Your task to perform on an android device: Go to Amazon Image 0: 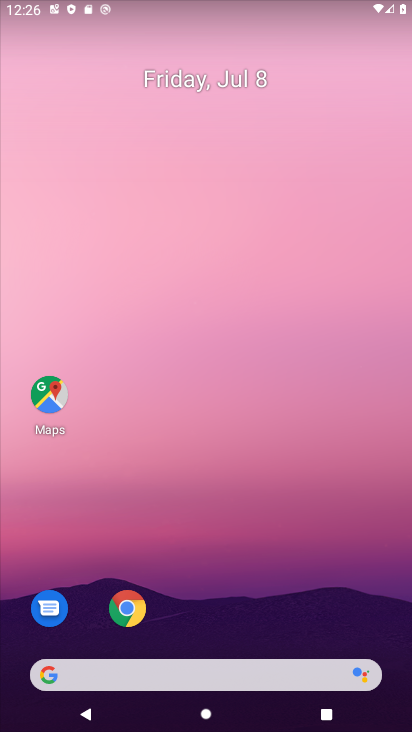
Step 0: click (120, 625)
Your task to perform on an android device: Go to Amazon Image 1: 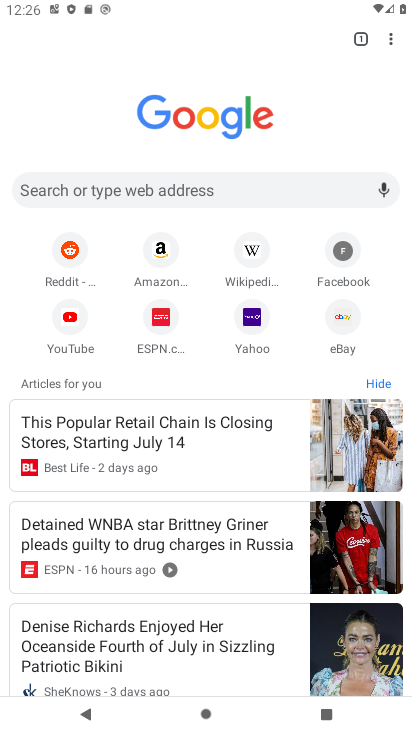
Step 1: click (164, 235)
Your task to perform on an android device: Go to Amazon Image 2: 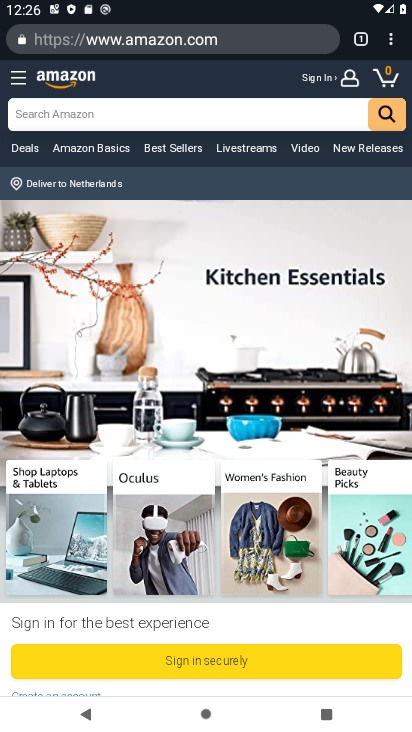
Step 2: task complete